Your task to perform on an android device: Open calendar and show me the fourth week of next month Image 0: 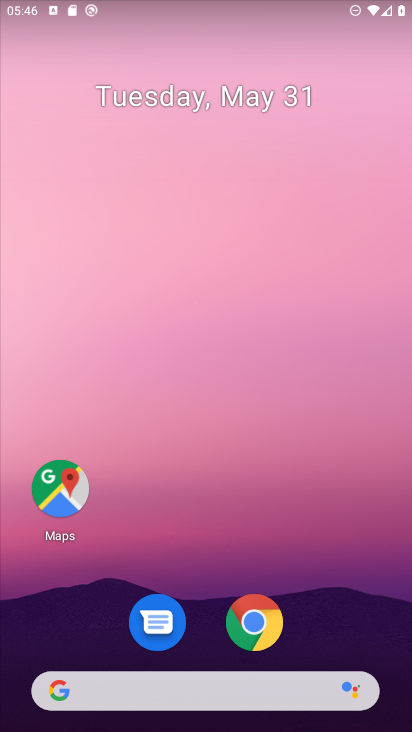
Step 0: drag from (302, 679) to (286, 8)
Your task to perform on an android device: Open calendar and show me the fourth week of next month Image 1: 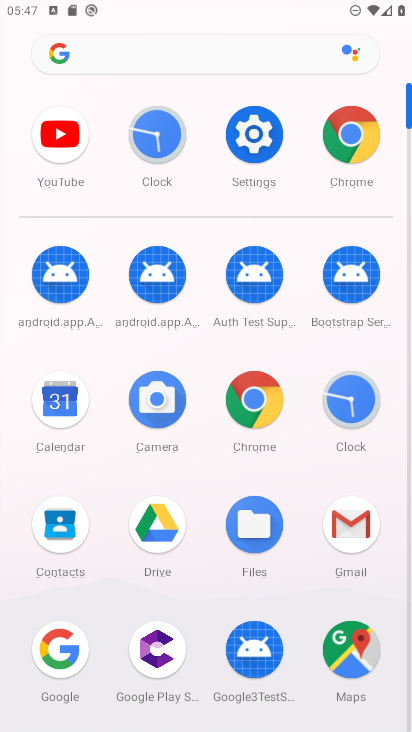
Step 1: click (61, 399)
Your task to perform on an android device: Open calendar and show me the fourth week of next month Image 2: 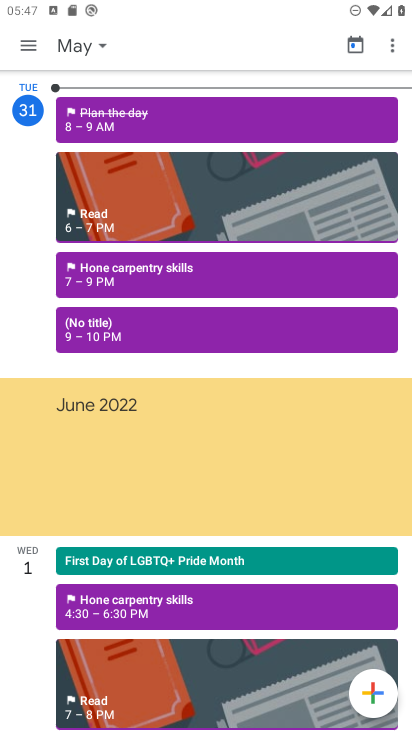
Step 2: click (102, 42)
Your task to perform on an android device: Open calendar and show me the fourth week of next month Image 3: 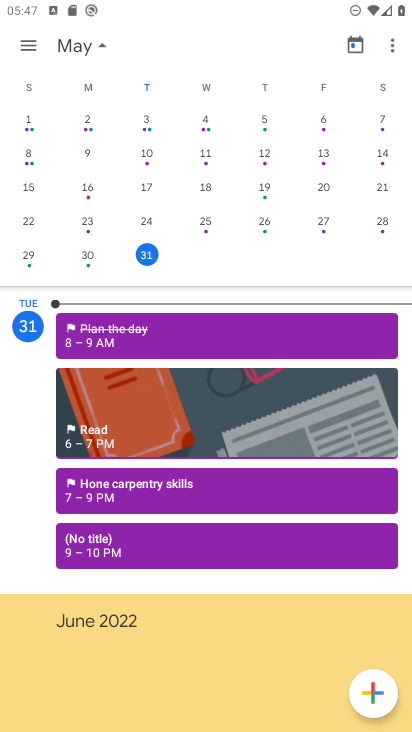
Step 3: drag from (370, 212) to (46, 197)
Your task to perform on an android device: Open calendar and show me the fourth week of next month Image 4: 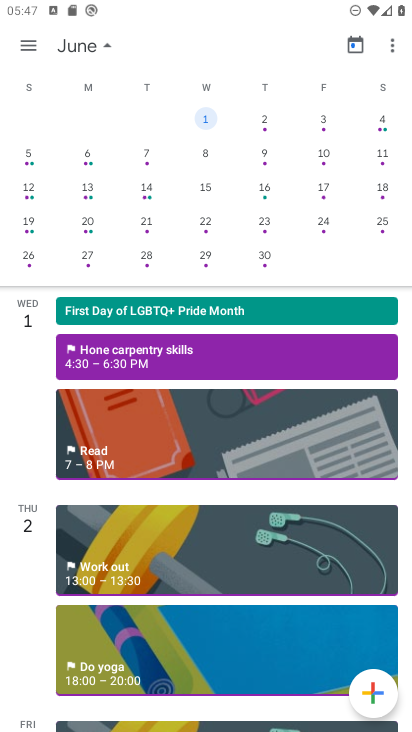
Step 4: click (260, 222)
Your task to perform on an android device: Open calendar and show me the fourth week of next month Image 5: 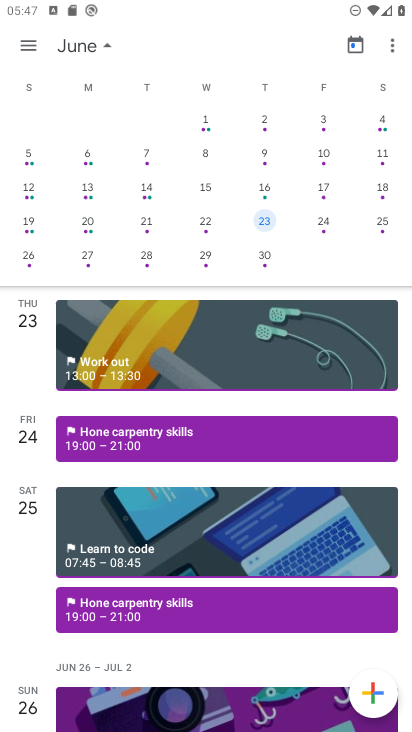
Step 5: task complete